Your task to perform on an android device: open sync settings in chrome Image 0: 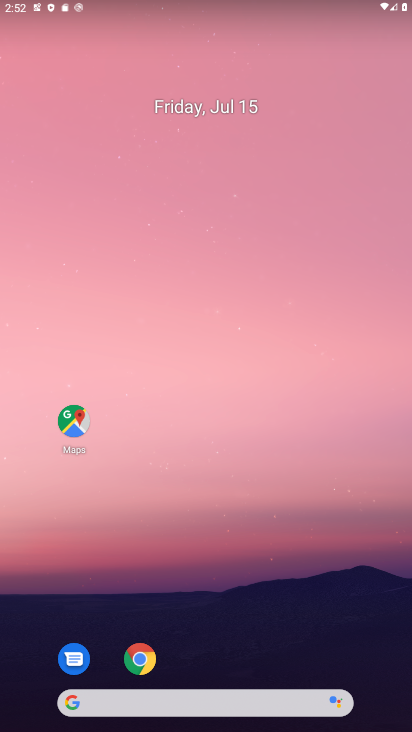
Step 0: click (138, 661)
Your task to perform on an android device: open sync settings in chrome Image 1: 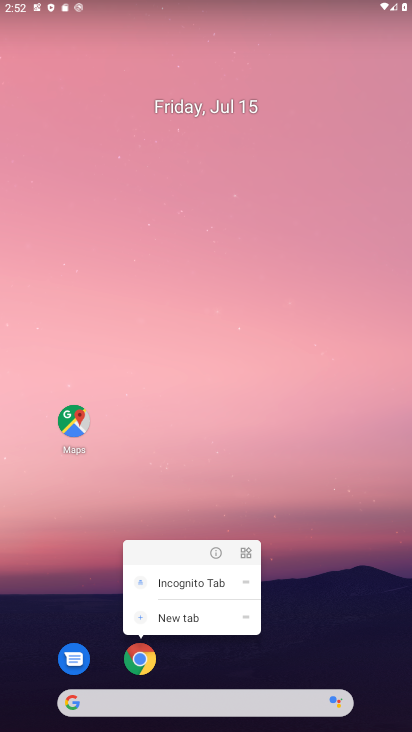
Step 1: drag from (147, 667) to (147, 316)
Your task to perform on an android device: open sync settings in chrome Image 2: 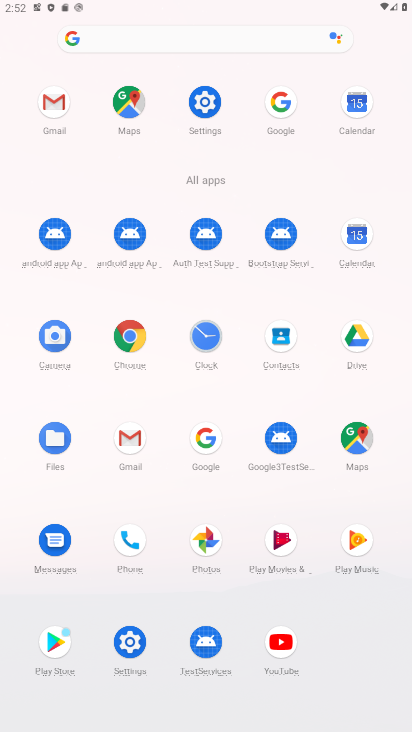
Step 2: click (135, 338)
Your task to perform on an android device: open sync settings in chrome Image 3: 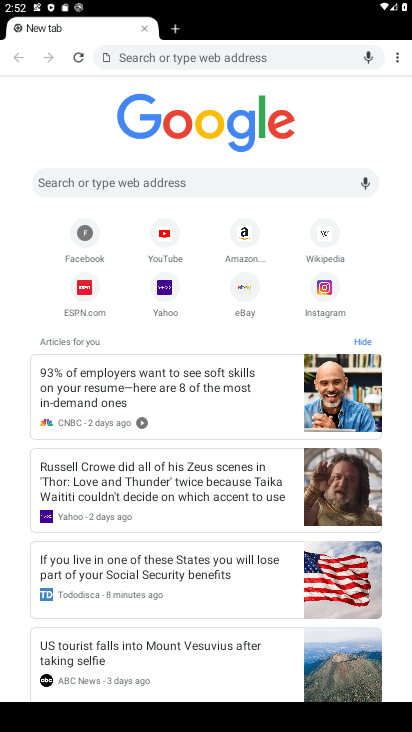
Step 3: click (398, 59)
Your task to perform on an android device: open sync settings in chrome Image 4: 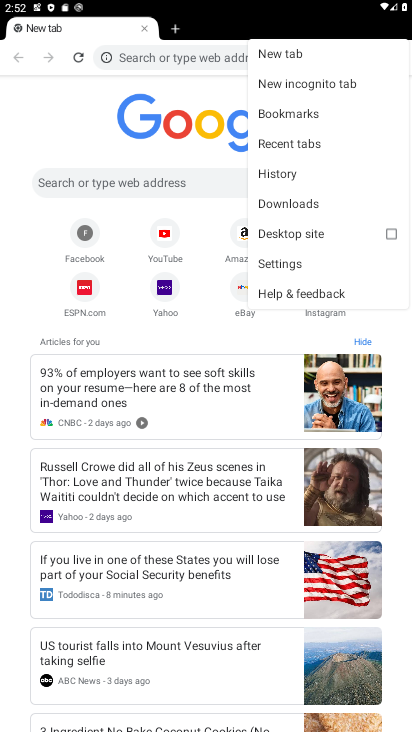
Step 4: click (281, 256)
Your task to perform on an android device: open sync settings in chrome Image 5: 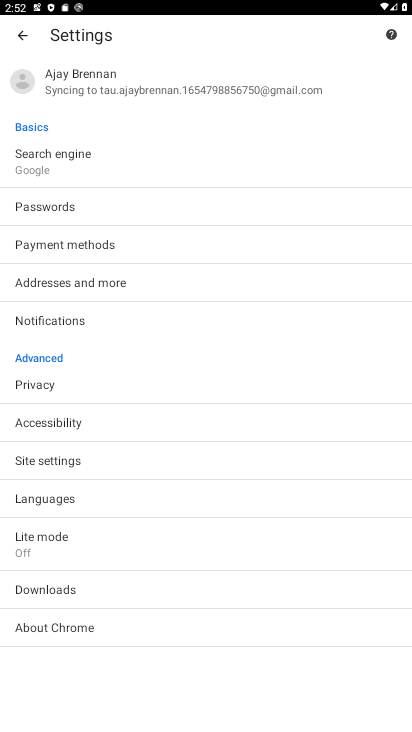
Step 5: click (98, 78)
Your task to perform on an android device: open sync settings in chrome Image 6: 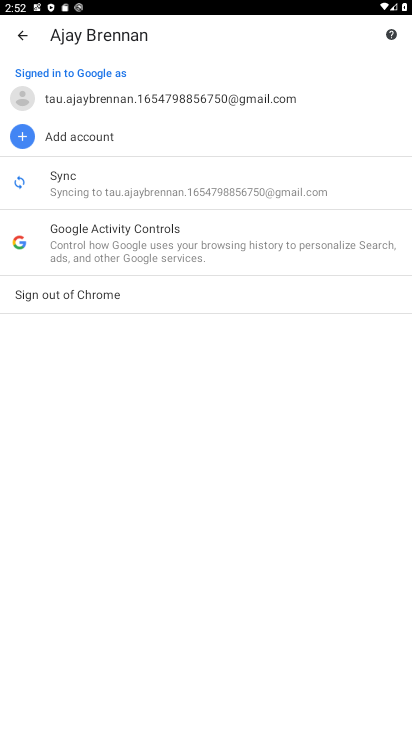
Step 6: click (87, 178)
Your task to perform on an android device: open sync settings in chrome Image 7: 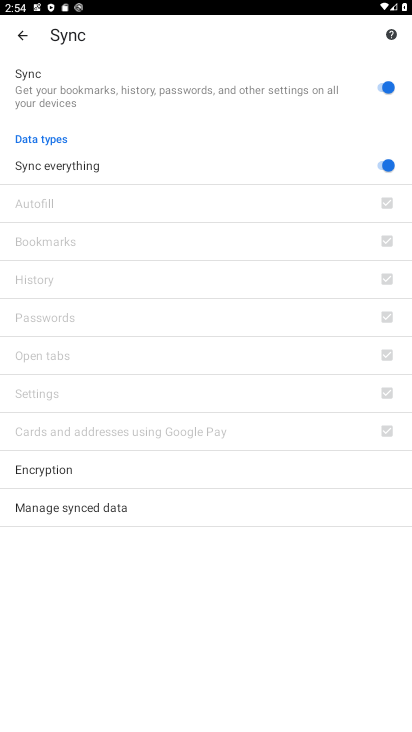
Step 7: task complete